Your task to perform on an android device: Open the phone app and click the voicemail tab. Image 0: 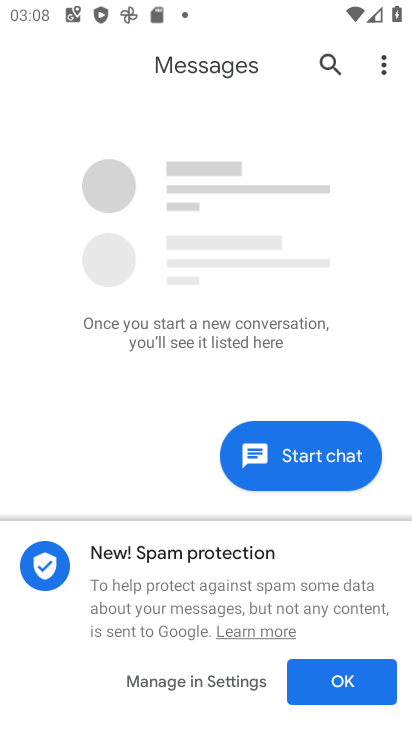
Step 0: press home button
Your task to perform on an android device: Open the phone app and click the voicemail tab. Image 1: 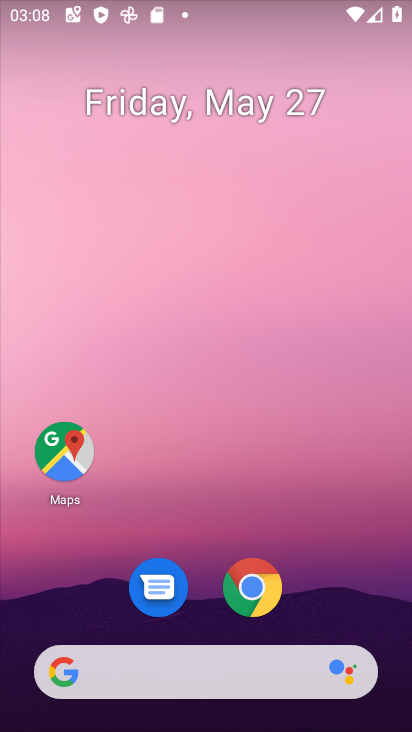
Step 1: drag from (357, 551) to (379, 152)
Your task to perform on an android device: Open the phone app and click the voicemail tab. Image 2: 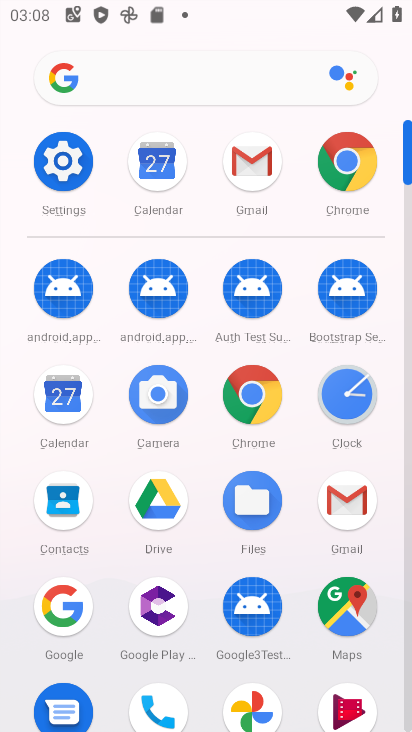
Step 2: click (159, 708)
Your task to perform on an android device: Open the phone app and click the voicemail tab. Image 3: 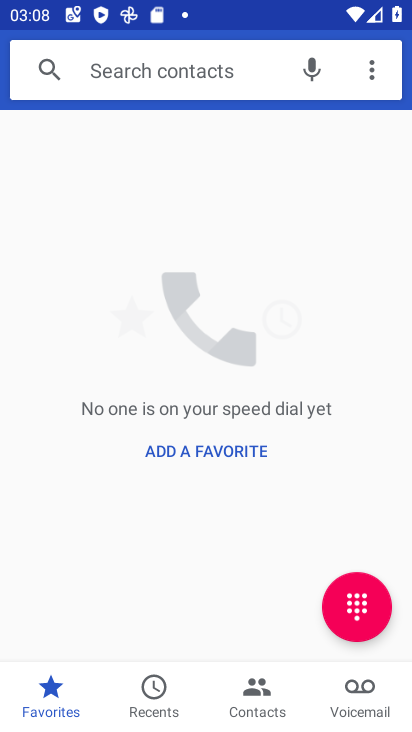
Step 3: click (351, 711)
Your task to perform on an android device: Open the phone app and click the voicemail tab. Image 4: 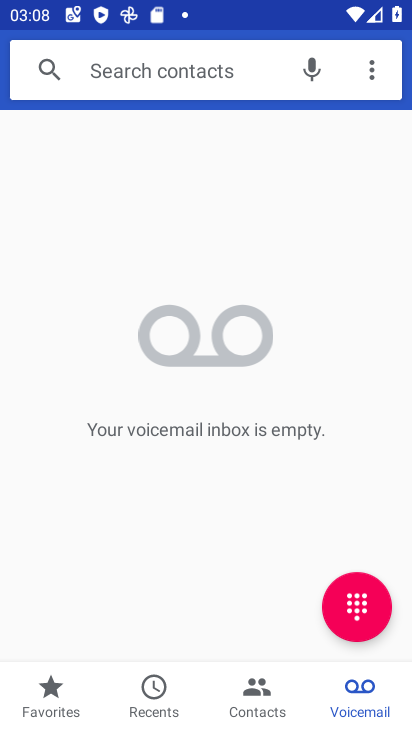
Step 4: task complete